Your task to perform on an android device: Is it going to rain today? Image 0: 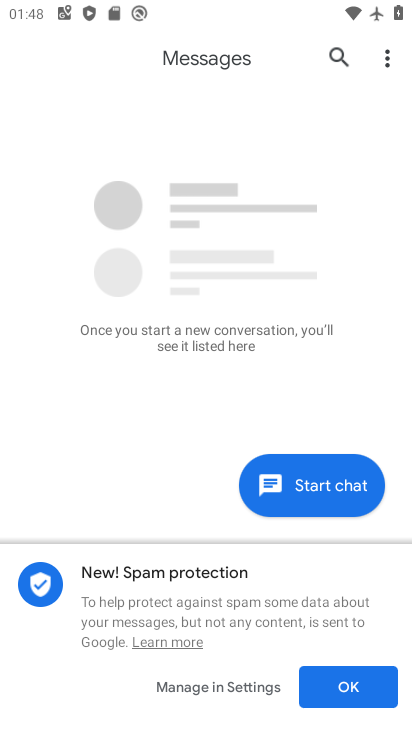
Step 0: drag from (236, 638) to (224, 406)
Your task to perform on an android device: Is it going to rain today? Image 1: 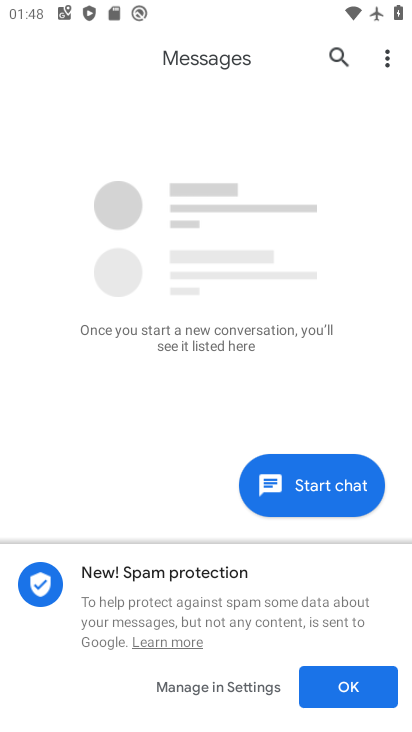
Step 1: press home button
Your task to perform on an android device: Is it going to rain today? Image 2: 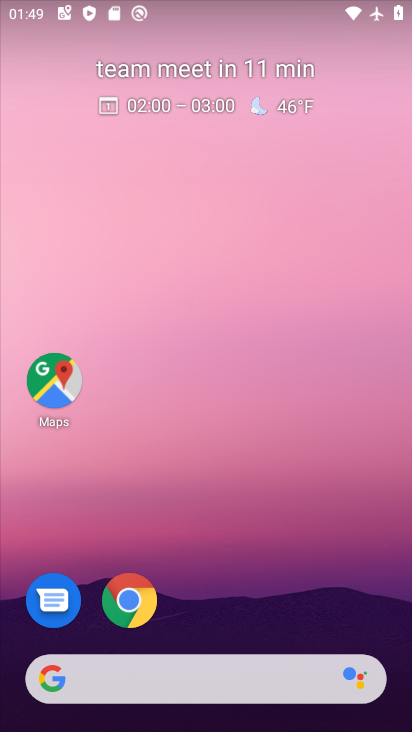
Step 2: click (234, 693)
Your task to perform on an android device: Is it going to rain today? Image 3: 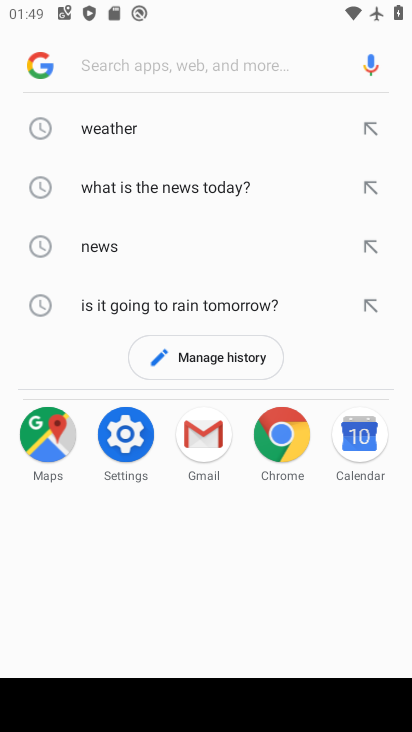
Step 3: click (109, 131)
Your task to perform on an android device: Is it going to rain today? Image 4: 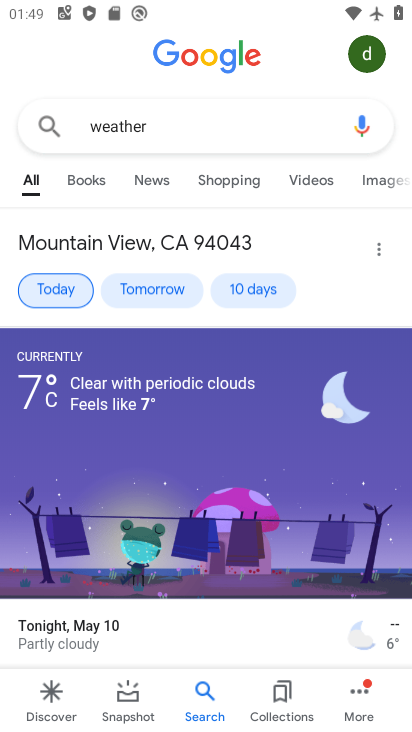
Step 4: task complete